Your task to perform on an android device: Go to settings Image 0: 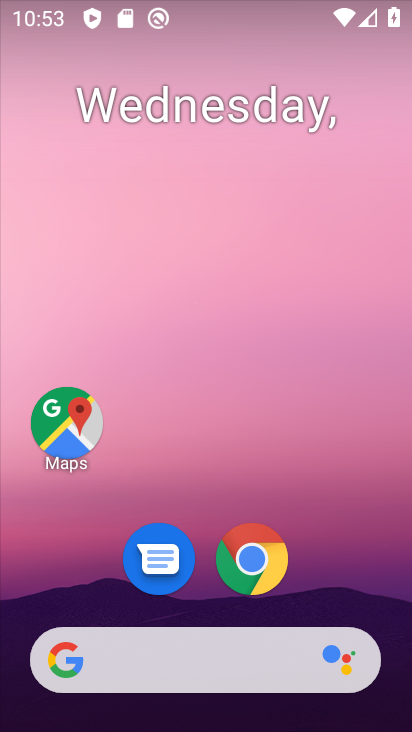
Step 0: drag from (319, 588) to (314, 1)
Your task to perform on an android device: Go to settings Image 1: 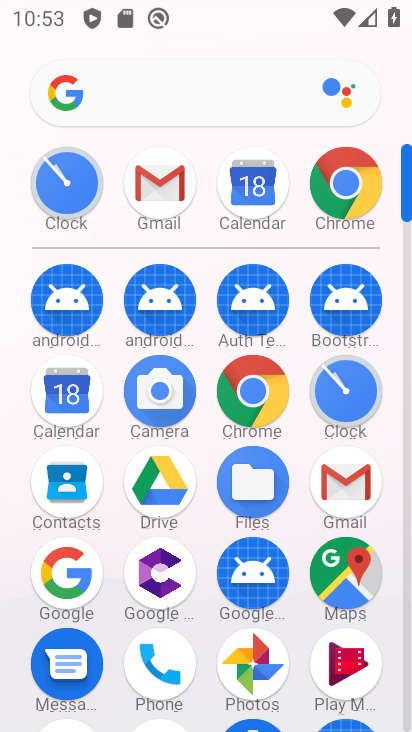
Step 1: drag from (394, 656) to (410, 357)
Your task to perform on an android device: Go to settings Image 2: 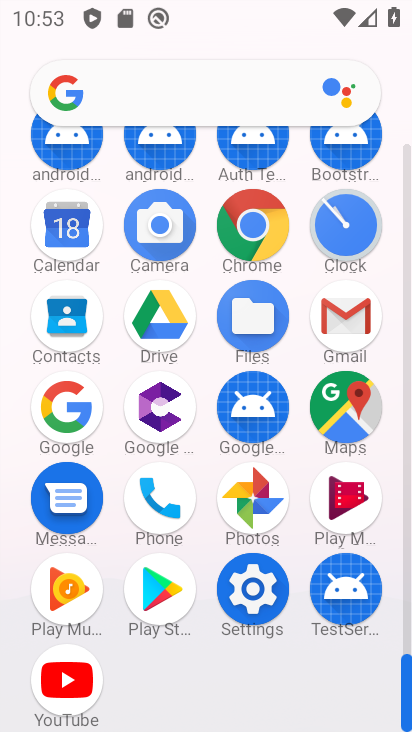
Step 2: click (268, 607)
Your task to perform on an android device: Go to settings Image 3: 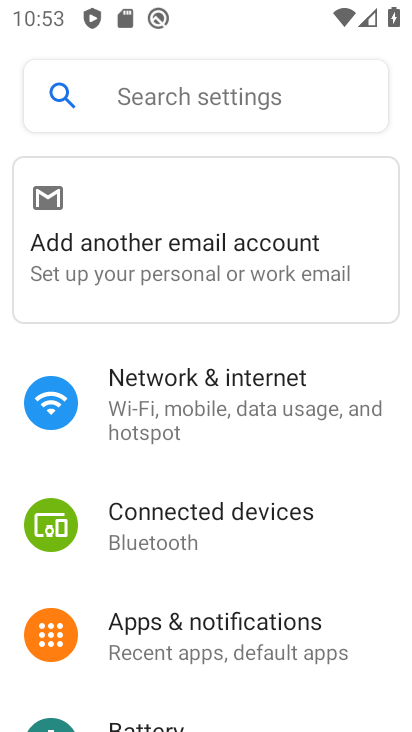
Step 3: task complete